Your task to perform on an android device: set default search engine in the chrome app Image 0: 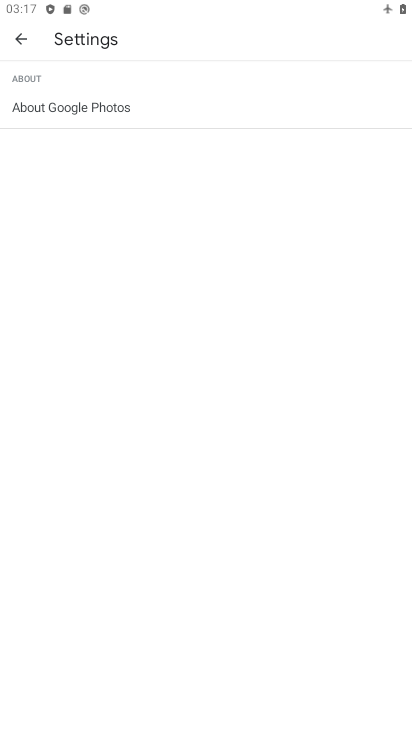
Step 0: press home button
Your task to perform on an android device: set default search engine in the chrome app Image 1: 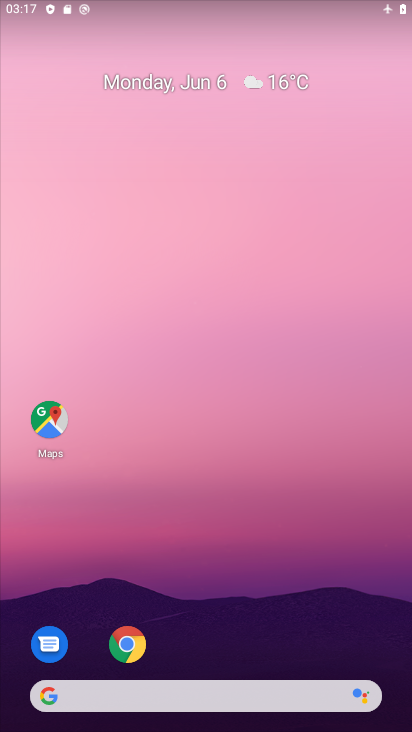
Step 1: drag from (217, 636) to (247, 416)
Your task to perform on an android device: set default search engine in the chrome app Image 2: 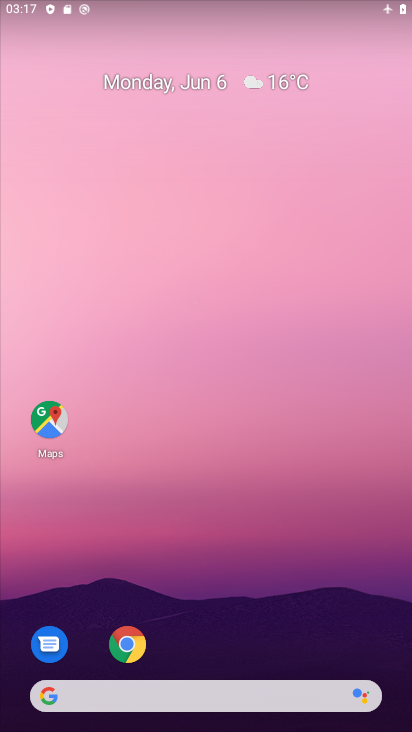
Step 2: drag from (230, 656) to (354, 0)
Your task to perform on an android device: set default search engine in the chrome app Image 3: 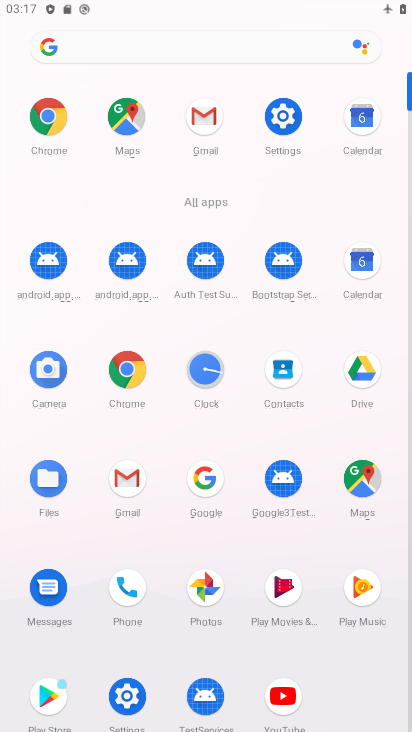
Step 3: click (138, 391)
Your task to perform on an android device: set default search engine in the chrome app Image 4: 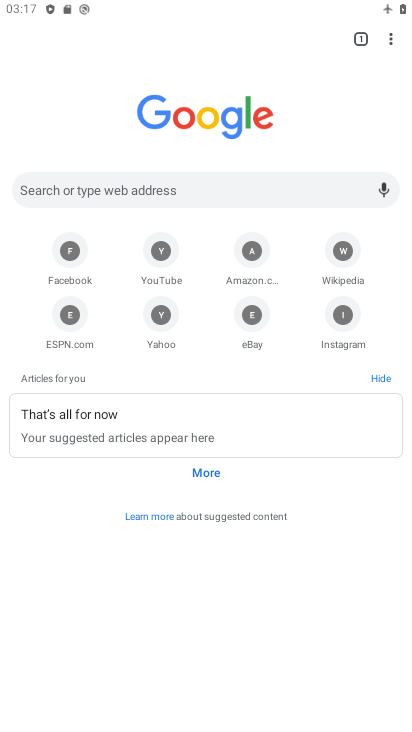
Step 4: click (404, 35)
Your task to perform on an android device: set default search engine in the chrome app Image 5: 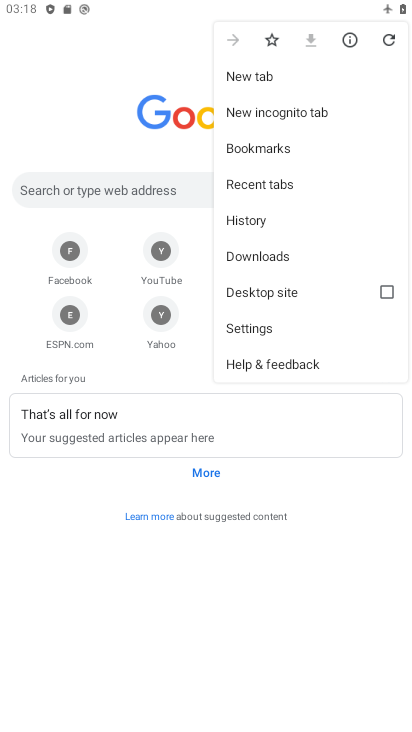
Step 5: click (247, 322)
Your task to perform on an android device: set default search engine in the chrome app Image 6: 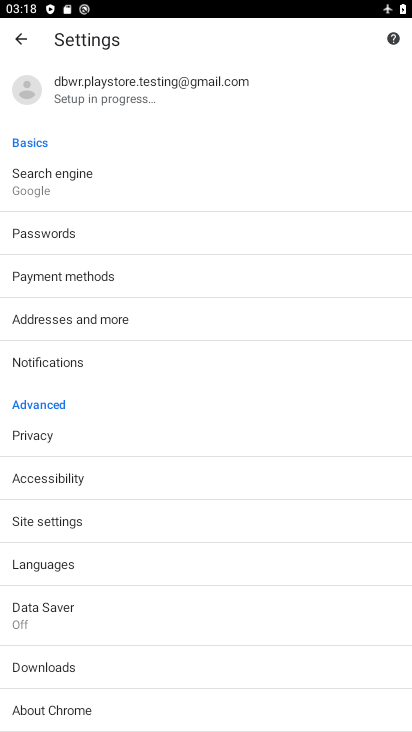
Step 6: click (70, 162)
Your task to perform on an android device: set default search engine in the chrome app Image 7: 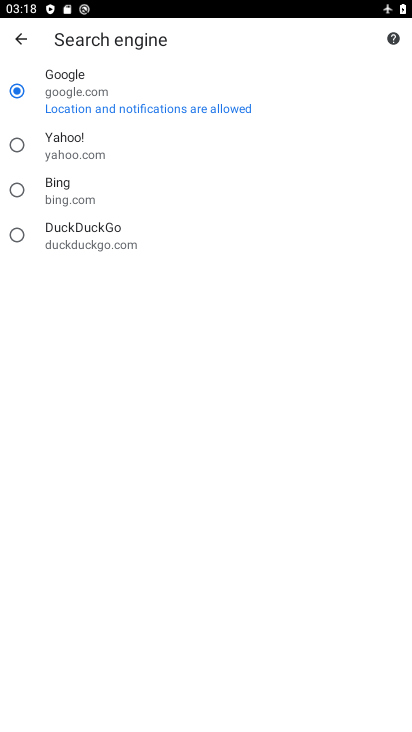
Step 7: click (112, 100)
Your task to perform on an android device: set default search engine in the chrome app Image 8: 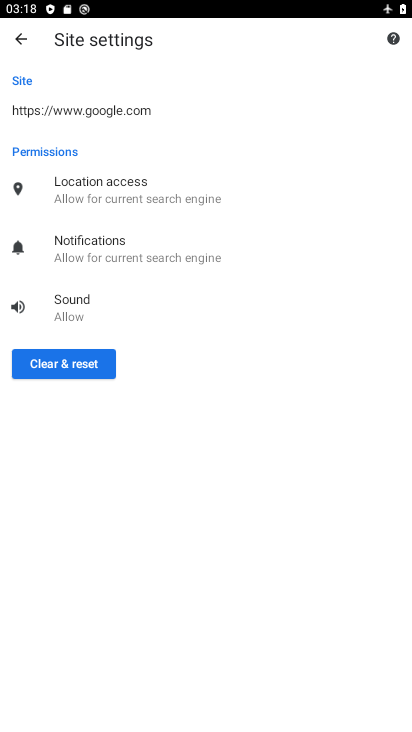
Step 8: click (44, 357)
Your task to perform on an android device: set default search engine in the chrome app Image 9: 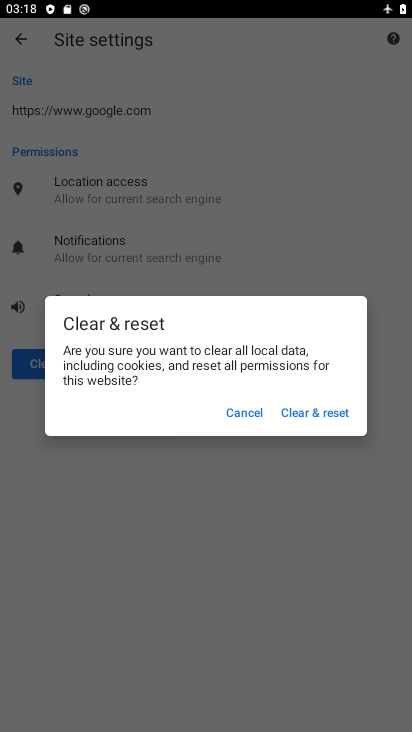
Step 9: click (338, 417)
Your task to perform on an android device: set default search engine in the chrome app Image 10: 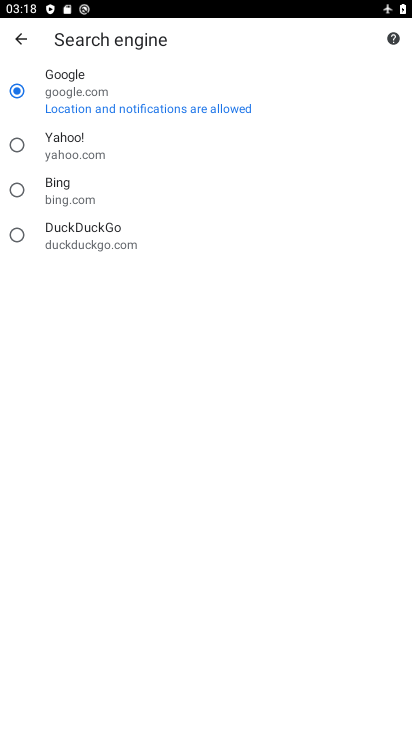
Step 10: task complete